Your task to perform on an android device: Open Google Chrome and open the bookmarks view Image 0: 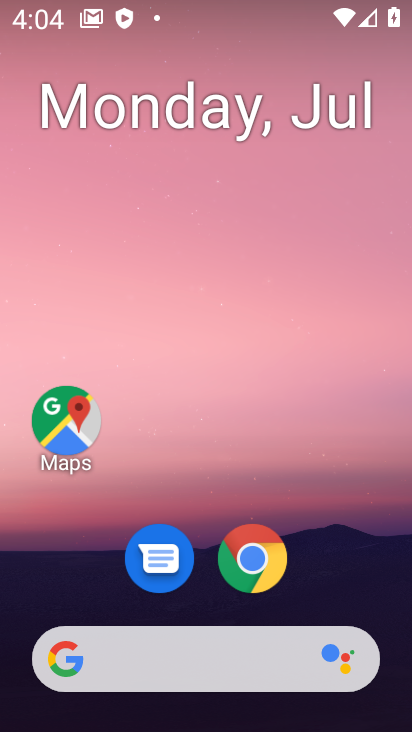
Step 0: click (245, 556)
Your task to perform on an android device: Open Google Chrome and open the bookmarks view Image 1: 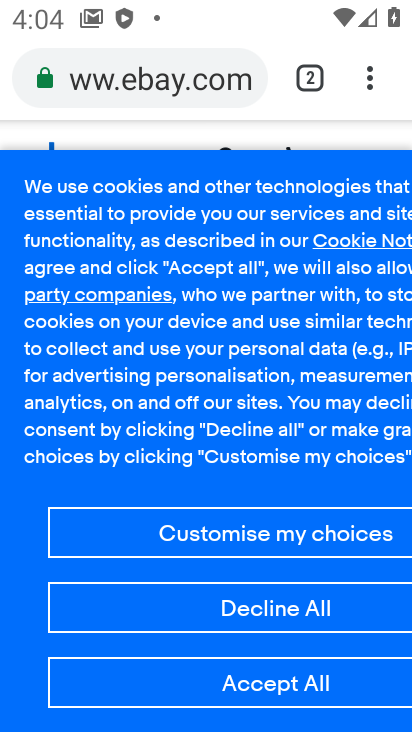
Step 1: task complete